Your task to perform on an android device: turn on wifi Image 0: 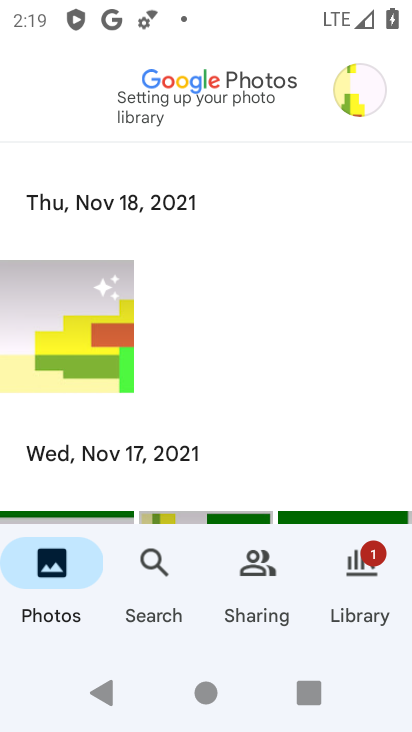
Step 0: press home button
Your task to perform on an android device: turn on wifi Image 1: 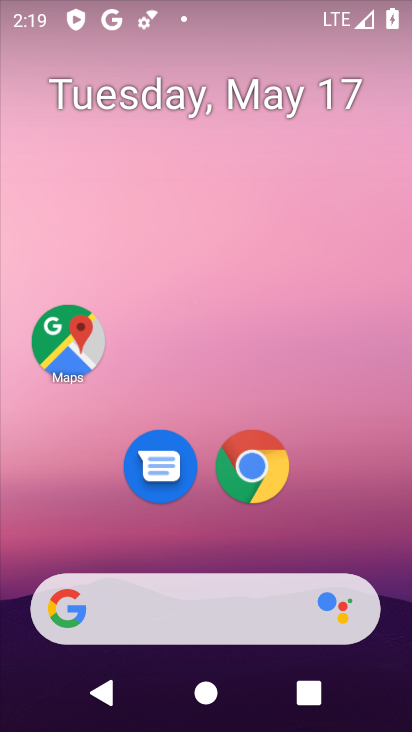
Step 1: drag from (339, 508) to (331, 31)
Your task to perform on an android device: turn on wifi Image 2: 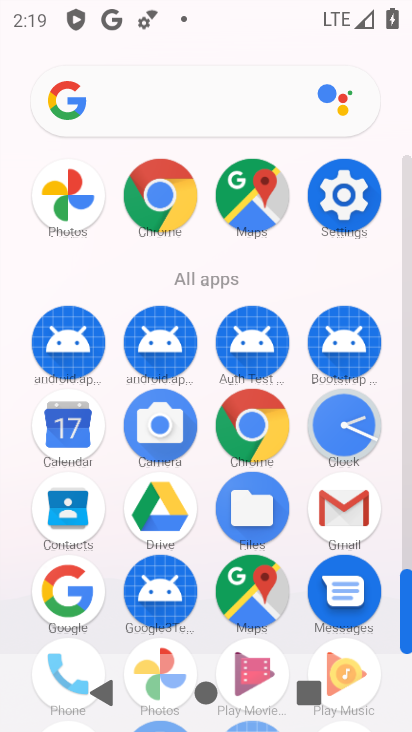
Step 2: click (350, 201)
Your task to perform on an android device: turn on wifi Image 3: 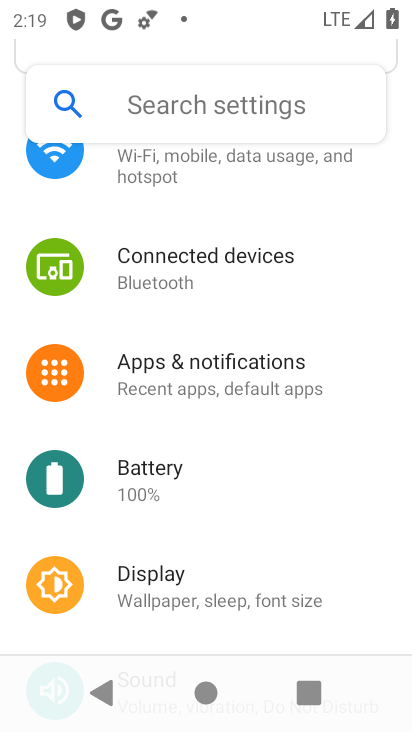
Step 3: drag from (223, 167) to (225, 644)
Your task to perform on an android device: turn on wifi Image 4: 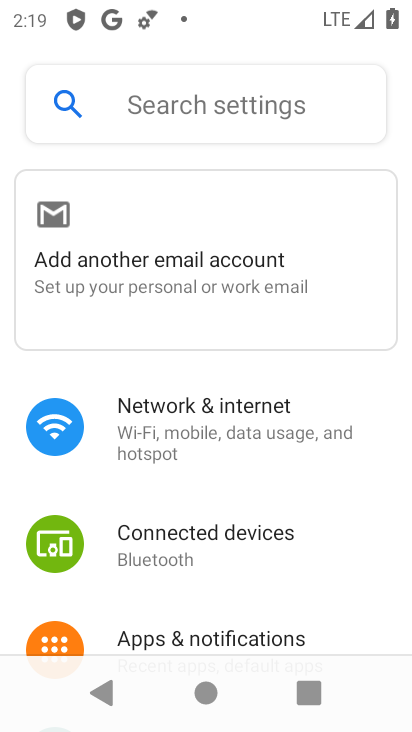
Step 4: click (188, 402)
Your task to perform on an android device: turn on wifi Image 5: 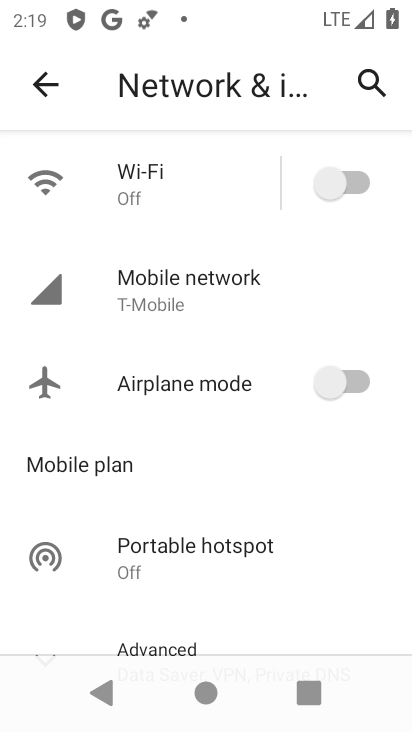
Step 5: click (353, 176)
Your task to perform on an android device: turn on wifi Image 6: 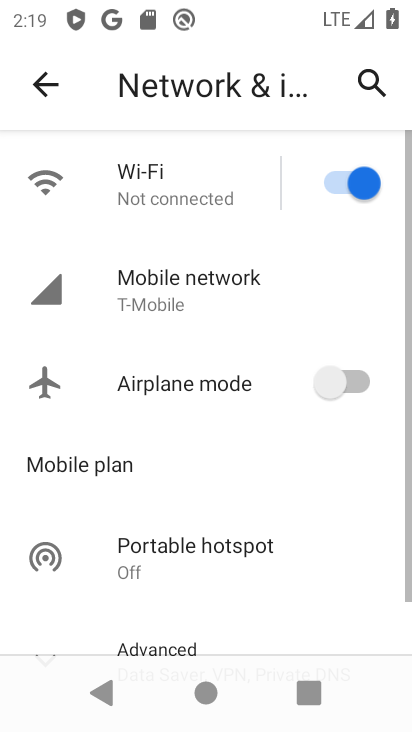
Step 6: task complete